Your task to perform on an android device: clear history in the chrome app Image 0: 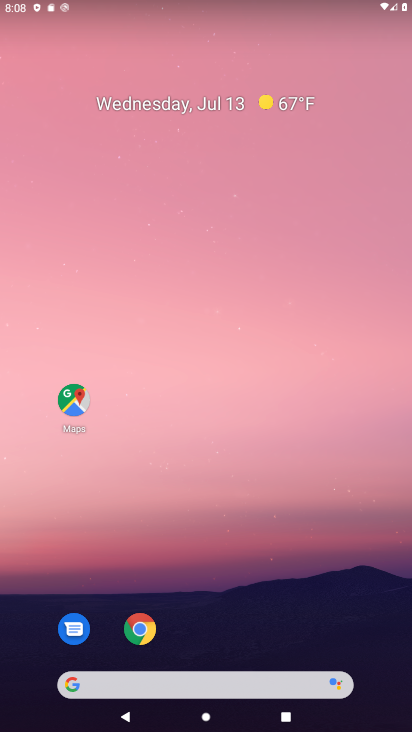
Step 0: click (139, 635)
Your task to perform on an android device: clear history in the chrome app Image 1: 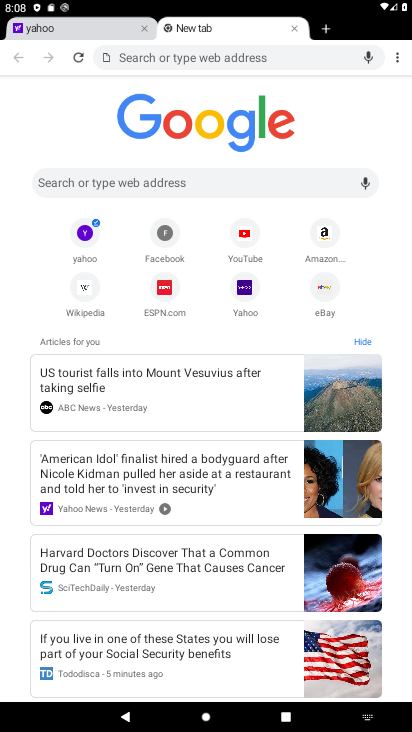
Step 1: click (394, 54)
Your task to perform on an android device: clear history in the chrome app Image 2: 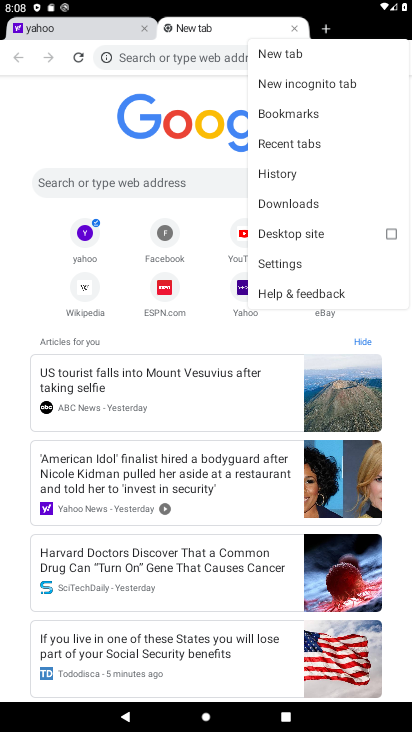
Step 2: click (280, 174)
Your task to perform on an android device: clear history in the chrome app Image 3: 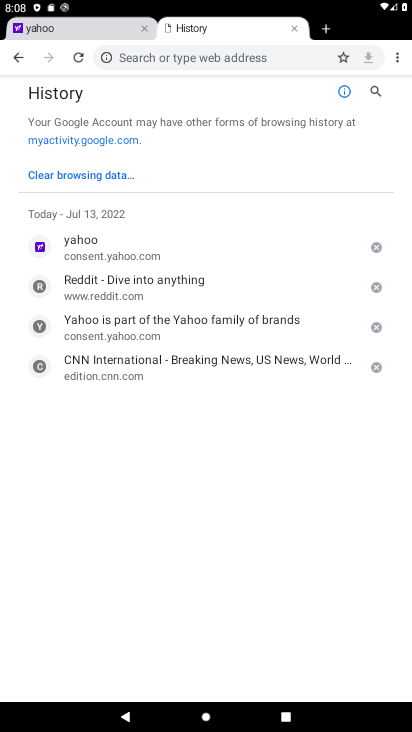
Step 3: click (96, 177)
Your task to perform on an android device: clear history in the chrome app Image 4: 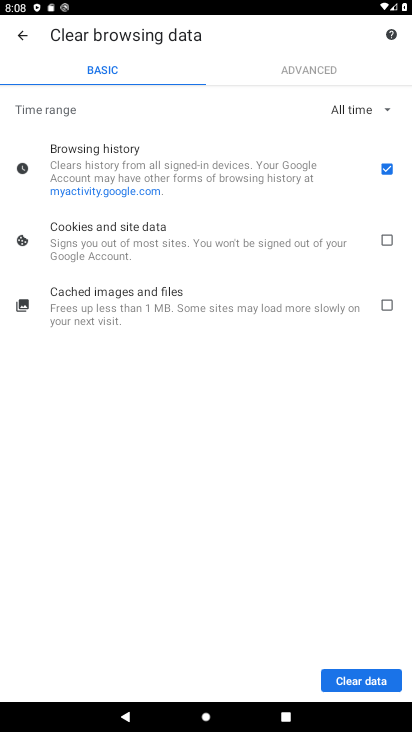
Step 4: click (386, 235)
Your task to perform on an android device: clear history in the chrome app Image 5: 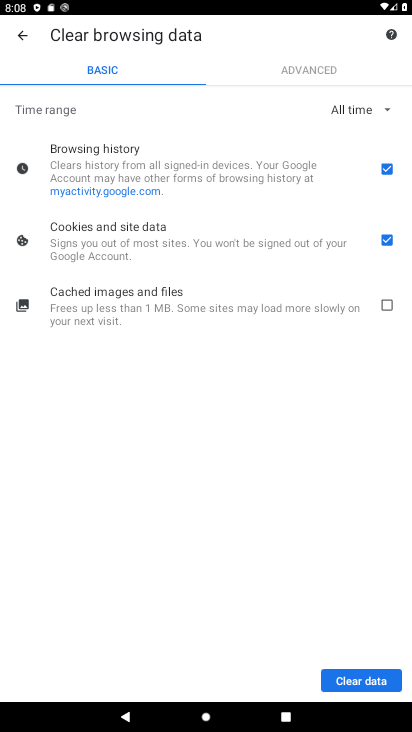
Step 5: click (389, 312)
Your task to perform on an android device: clear history in the chrome app Image 6: 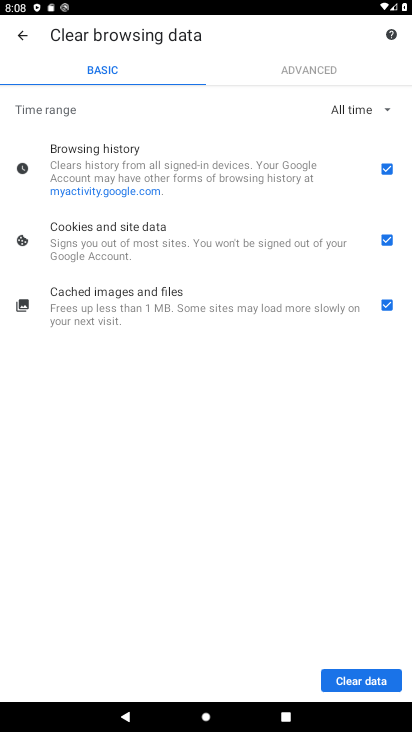
Step 6: click (369, 670)
Your task to perform on an android device: clear history in the chrome app Image 7: 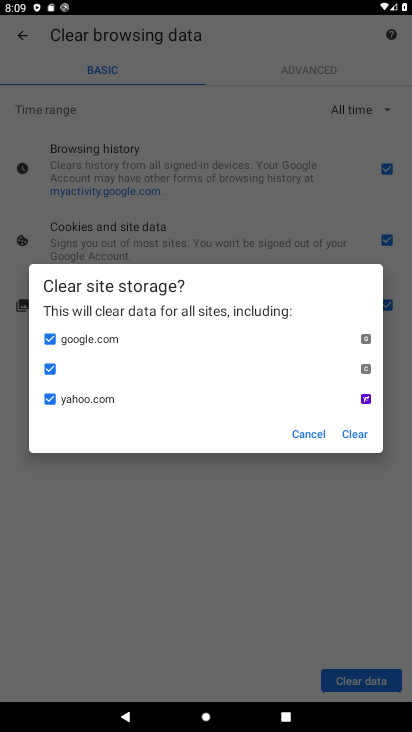
Step 7: click (356, 430)
Your task to perform on an android device: clear history in the chrome app Image 8: 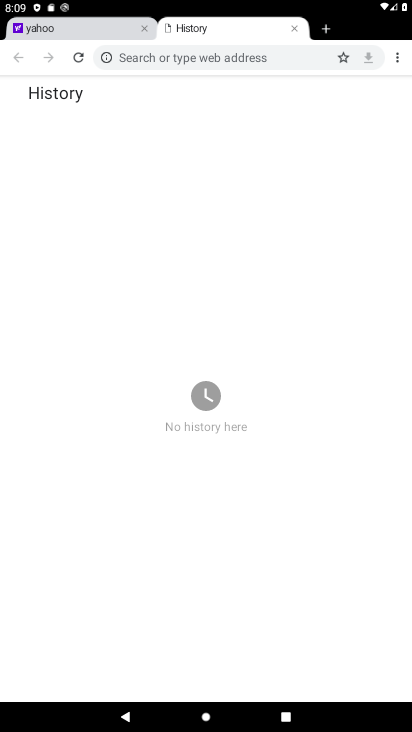
Step 8: task complete